Your task to perform on an android device: turn on priority inbox in the gmail app Image 0: 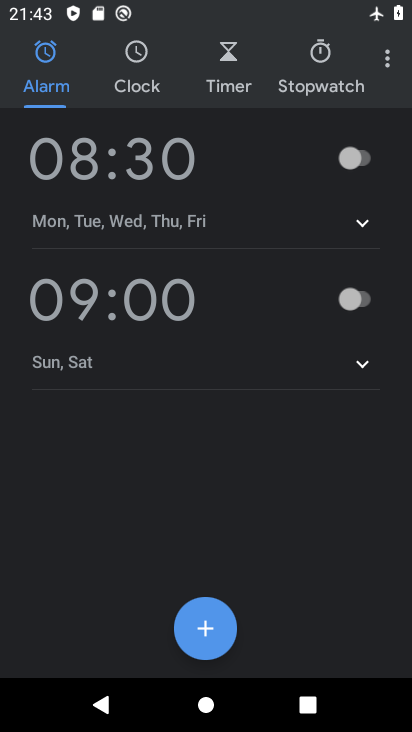
Step 0: press home button
Your task to perform on an android device: turn on priority inbox in the gmail app Image 1: 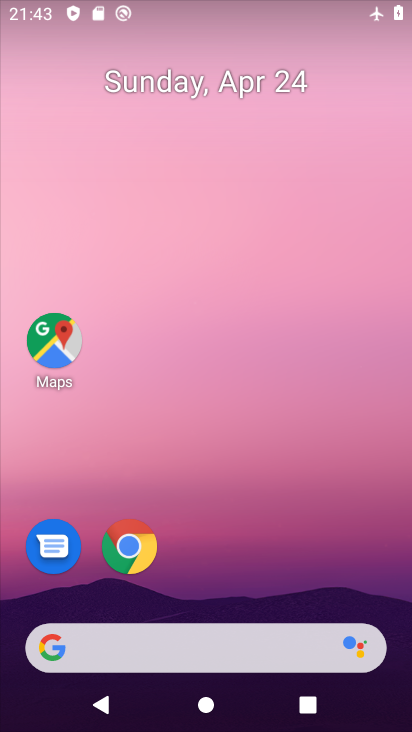
Step 1: drag from (301, 570) to (343, 238)
Your task to perform on an android device: turn on priority inbox in the gmail app Image 2: 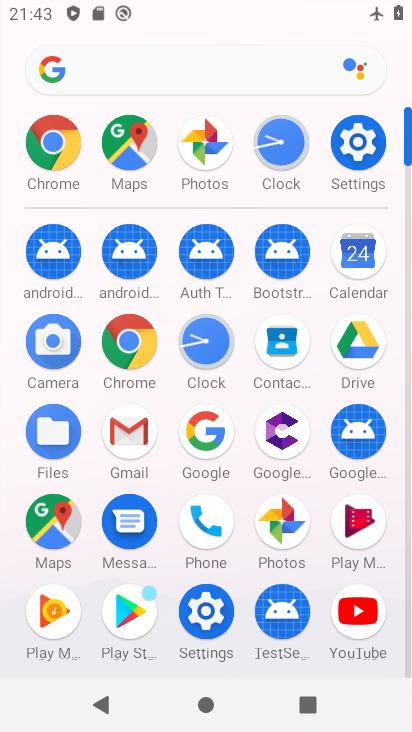
Step 2: click (127, 423)
Your task to perform on an android device: turn on priority inbox in the gmail app Image 3: 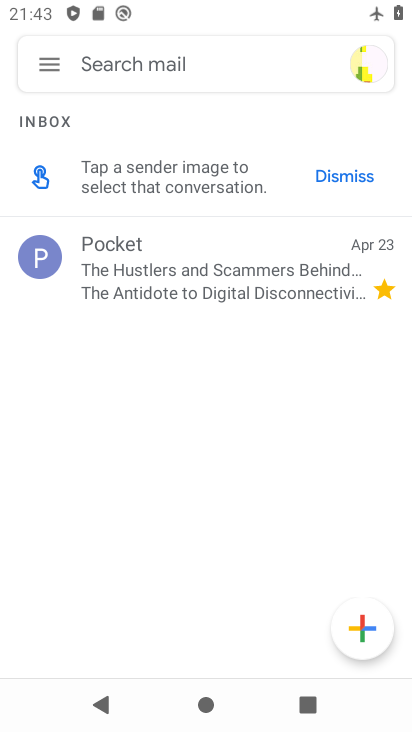
Step 3: click (45, 58)
Your task to perform on an android device: turn on priority inbox in the gmail app Image 4: 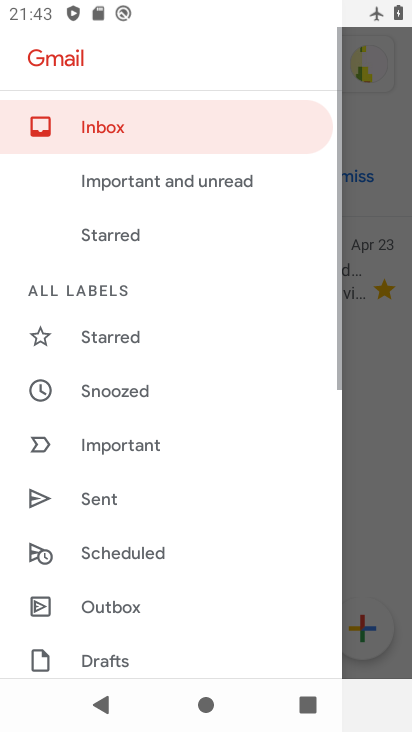
Step 4: drag from (200, 590) to (252, 173)
Your task to perform on an android device: turn on priority inbox in the gmail app Image 5: 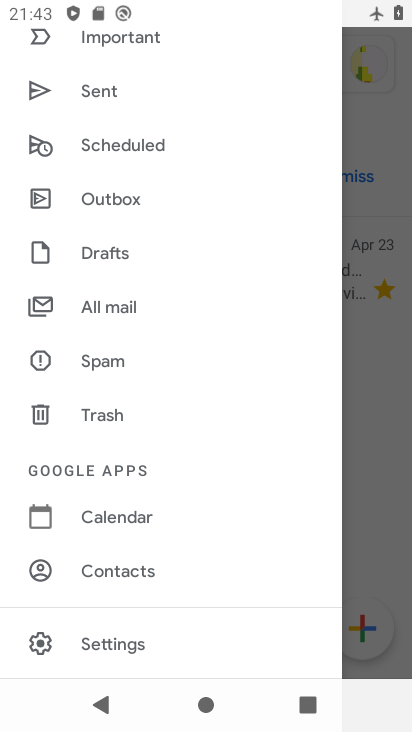
Step 5: click (152, 636)
Your task to perform on an android device: turn on priority inbox in the gmail app Image 6: 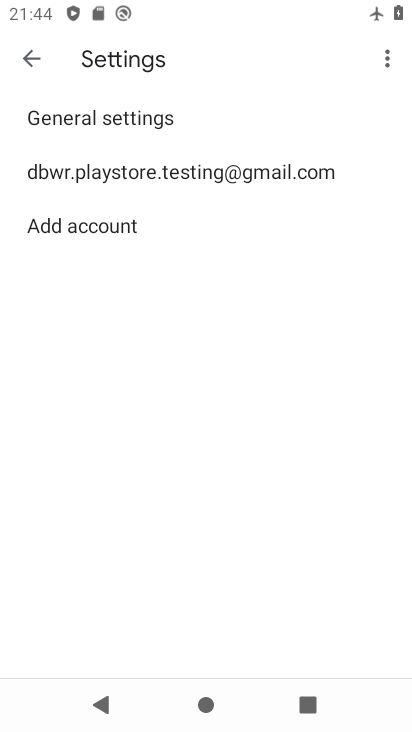
Step 6: click (122, 176)
Your task to perform on an android device: turn on priority inbox in the gmail app Image 7: 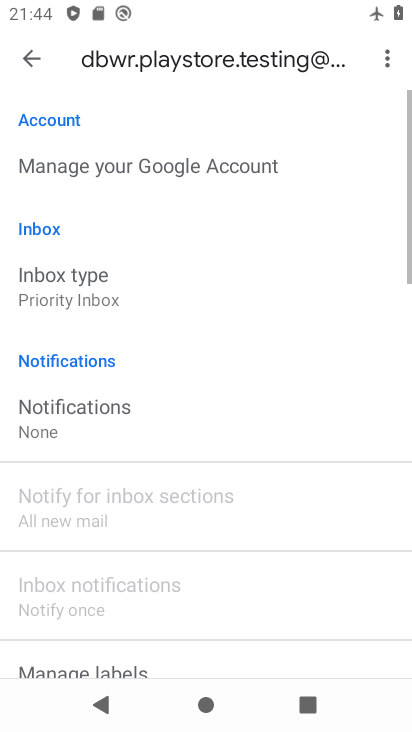
Step 7: click (95, 289)
Your task to perform on an android device: turn on priority inbox in the gmail app Image 8: 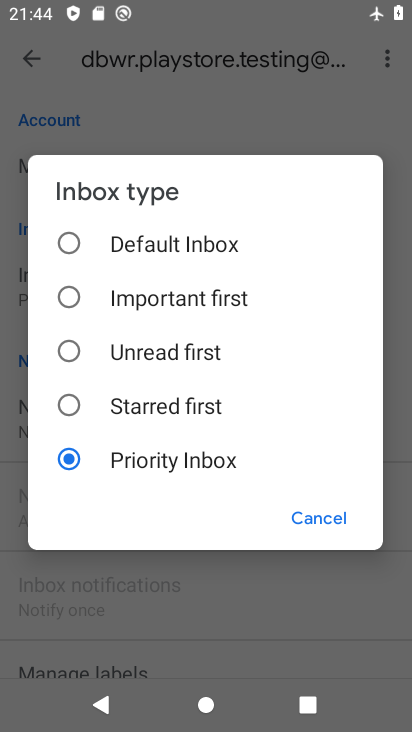
Step 8: task complete